Your task to perform on an android device: Open display settings Image 0: 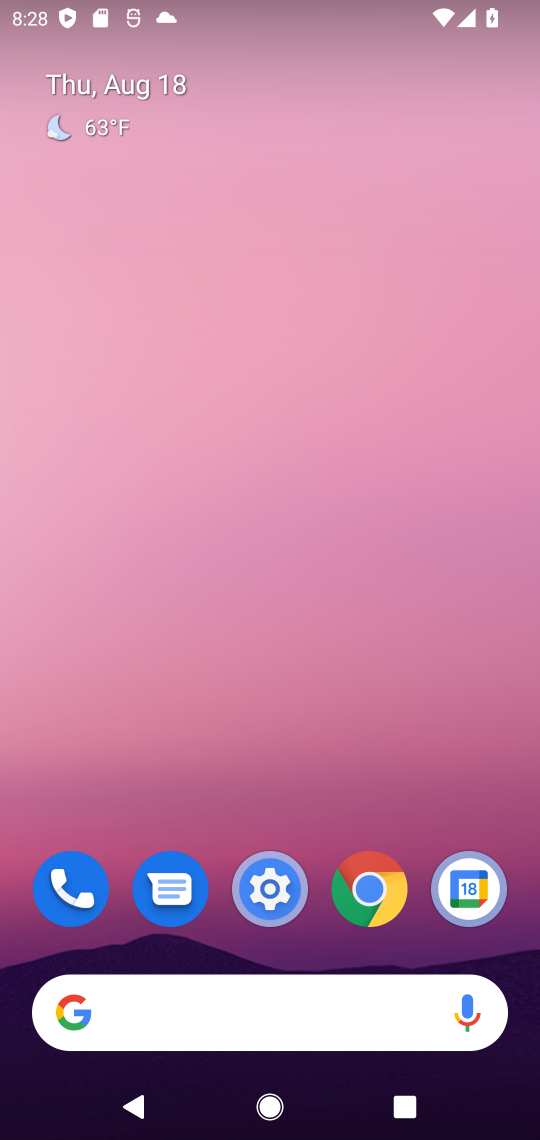
Step 0: click (270, 885)
Your task to perform on an android device: Open display settings Image 1: 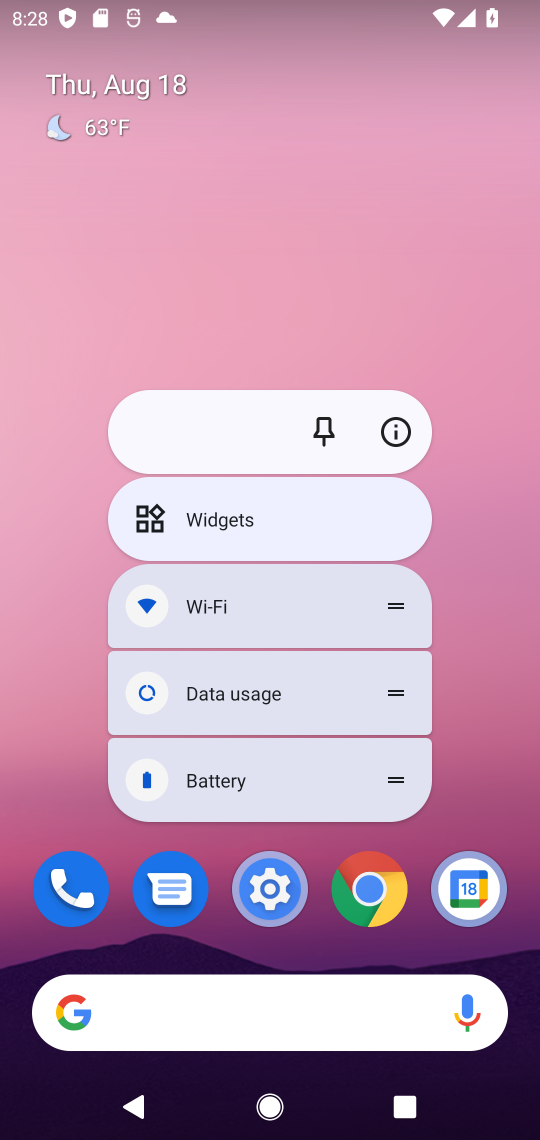
Step 1: click (276, 886)
Your task to perform on an android device: Open display settings Image 2: 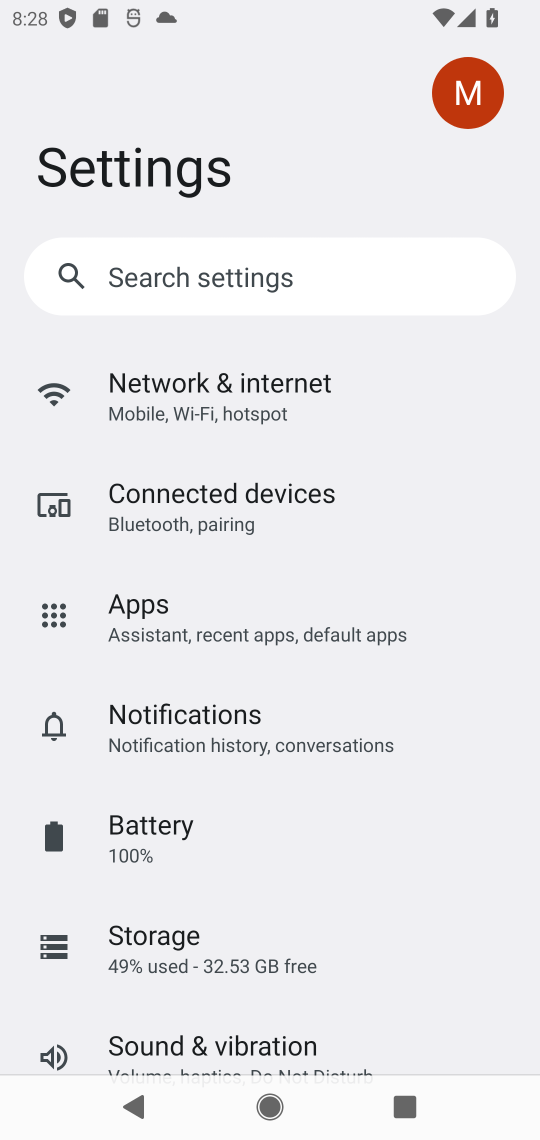
Step 2: drag from (201, 996) to (149, 305)
Your task to perform on an android device: Open display settings Image 3: 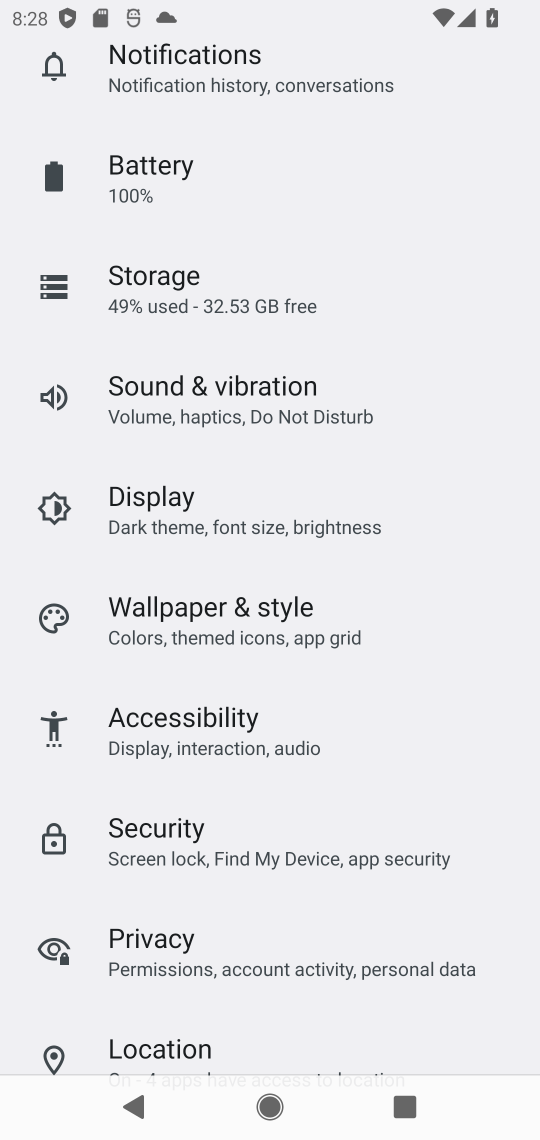
Step 3: click (152, 501)
Your task to perform on an android device: Open display settings Image 4: 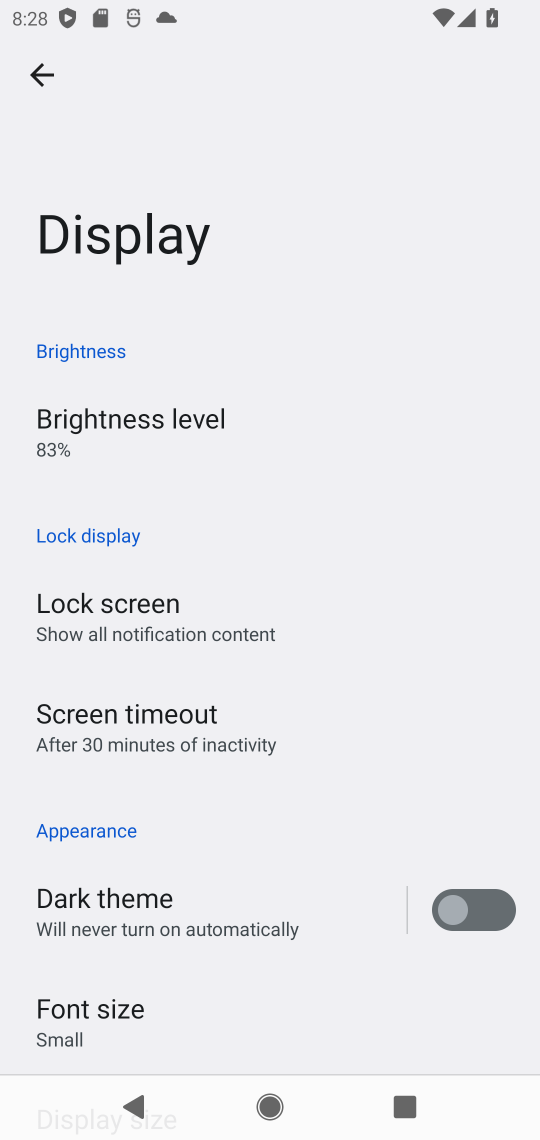
Step 4: task complete